Your task to perform on an android device: Open location settings Image 0: 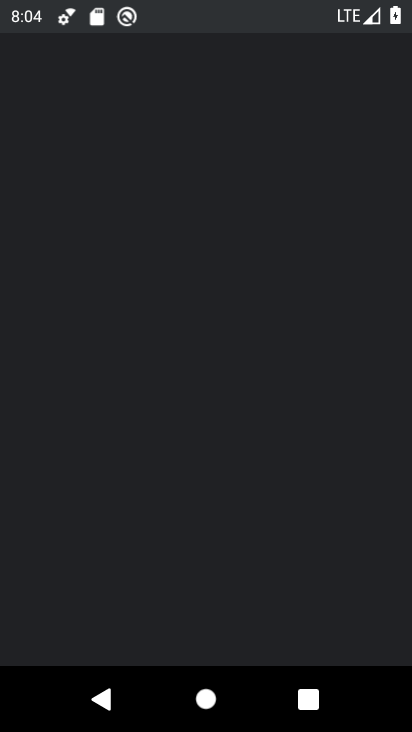
Step 0: drag from (22, 494) to (193, 254)
Your task to perform on an android device: Open location settings Image 1: 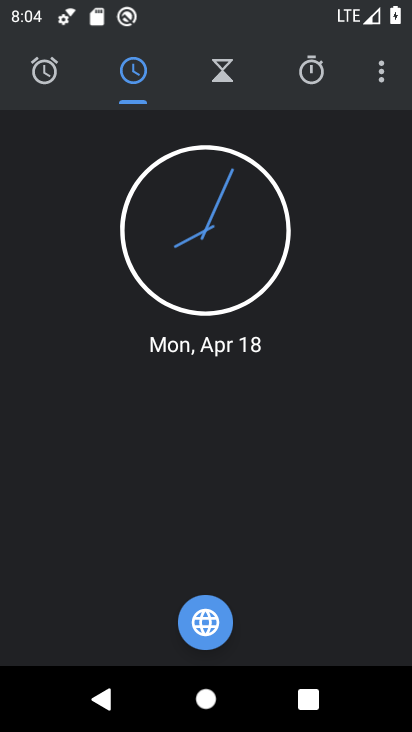
Step 1: press home button
Your task to perform on an android device: Open location settings Image 2: 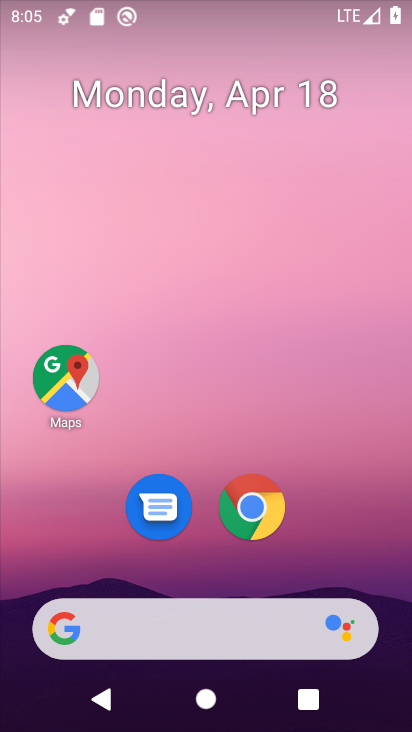
Step 2: drag from (6, 502) to (194, 146)
Your task to perform on an android device: Open location settings Image 3: 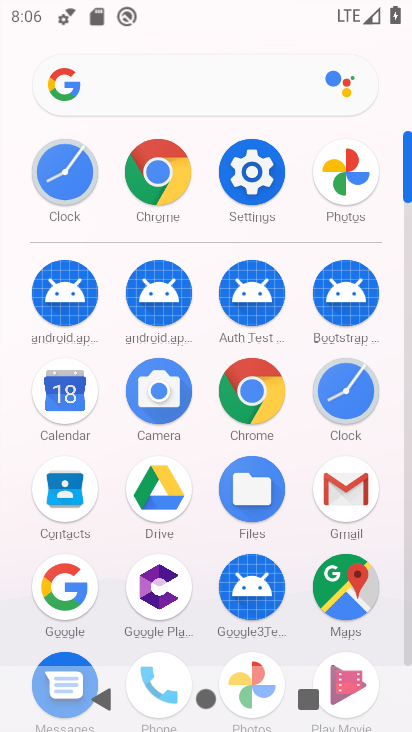
Step 3: click (258, 184)
Your task to perform on an android device: Open location settings Image 4: 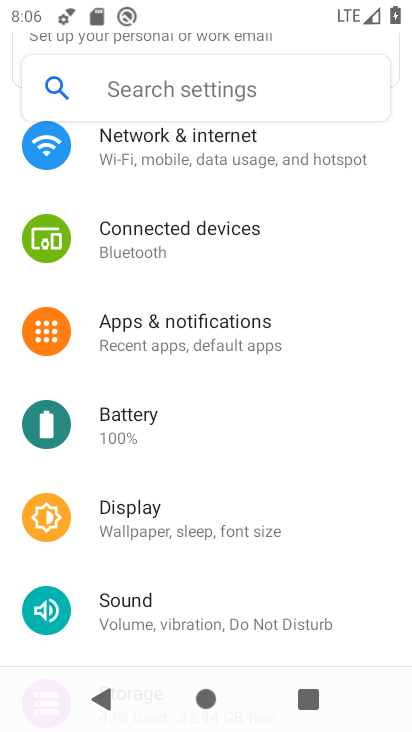
Step 4: drag from (127, 567) to (290, 215)
Your task to perform on an android device: Open location settings Image 5: 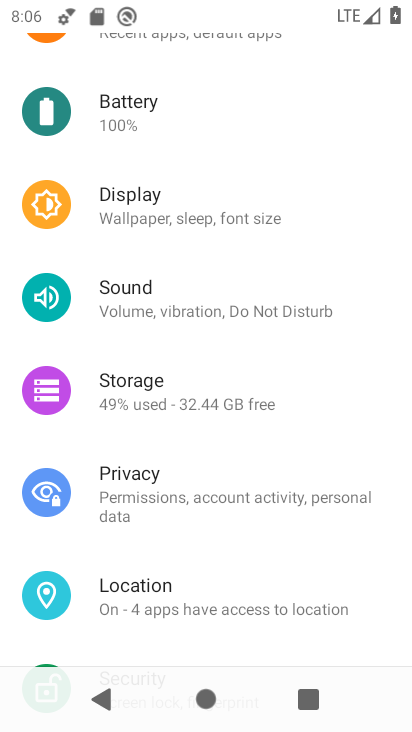
Step 5: click (127, 587)
Your task to perform on an android device: Open location settings Image 6: 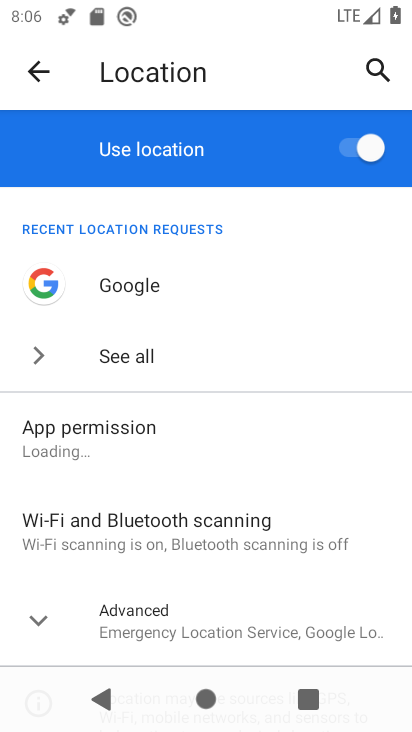
Step 6: task complete